Your task to perform on an android device: Open accessibility settings Image 0: 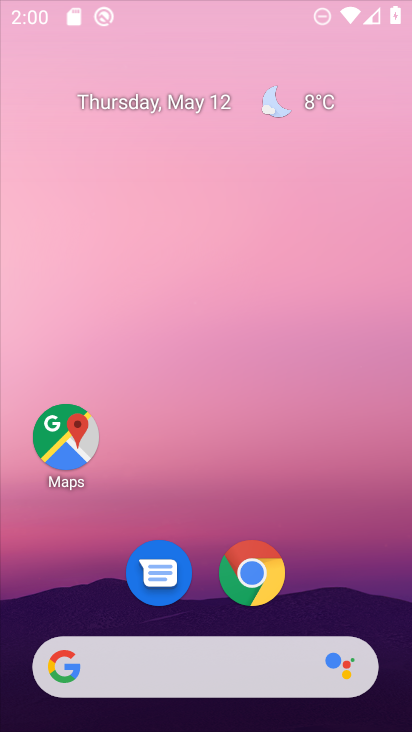
Step 0: drag from (321, 586) to (207, 15)
Your task to perform on an android device: Open accessibility settings Image 1: 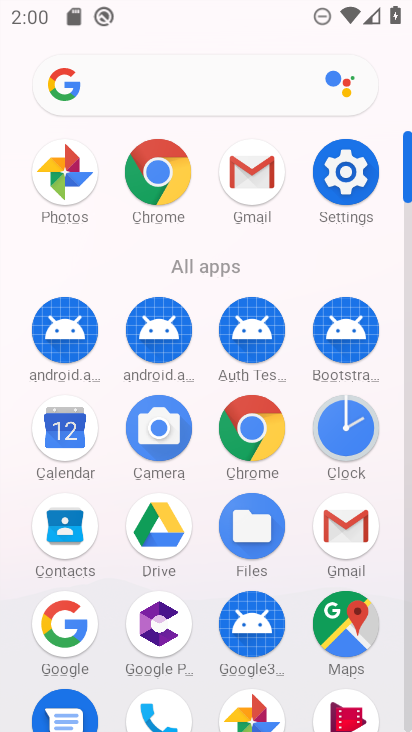
Step 1: click (349, 171)
Your task to perform on an android device: Open accessibility settings Image 2: 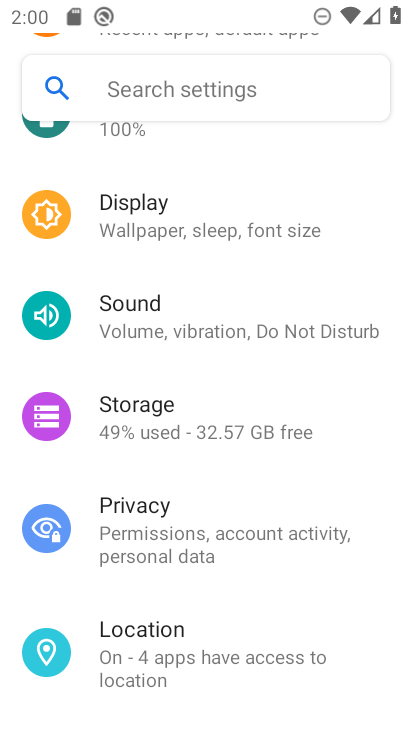
Step 2: drag from (216, 547) to (134, 25)
Your task to perform on an android device: Open accessibility settings Image 3: 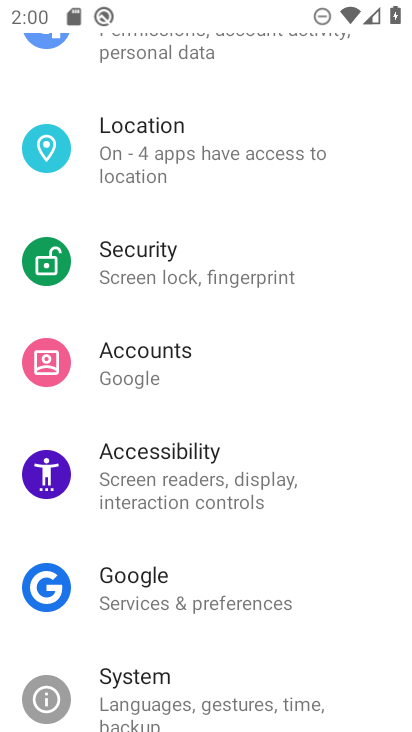
Step 3: drag from (191, 361) to (146, 38)
Your task to perform on an android device: Open accessibility settings Image 4: 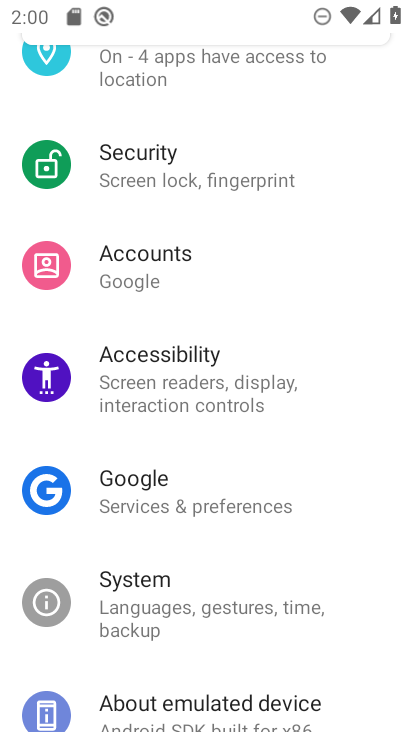
Step 4: drag from (244, 396) to (217, 65)
Your task to perform on an android device: Open accessibility settings Image 5: 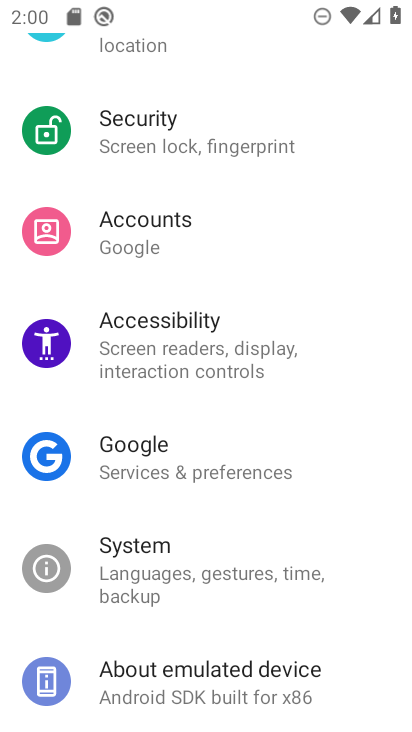
Step 5: click (142, 359)
Your task to perform on an android device: Open accessibility settings Image 6: 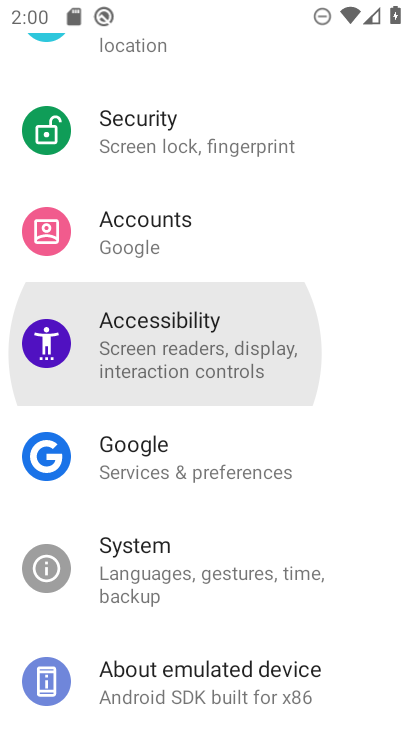
Step 6: click (142, 359)
Your task to perform on an android device: Open accessibility settings Image 7: 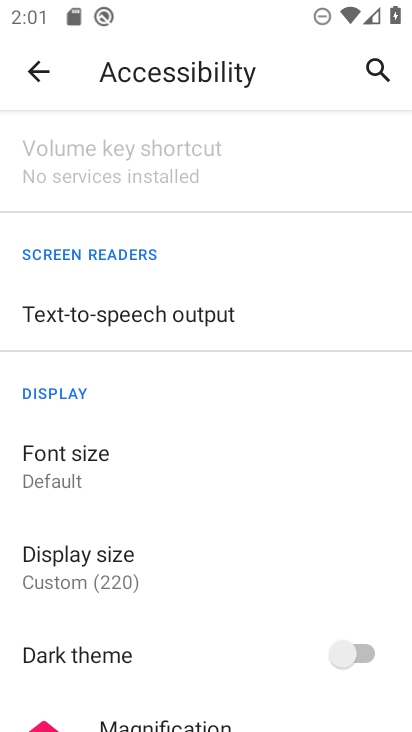
Step 7: task complete